Your task to perform on an android device: What's the price of the Samsung TV? Image 0: 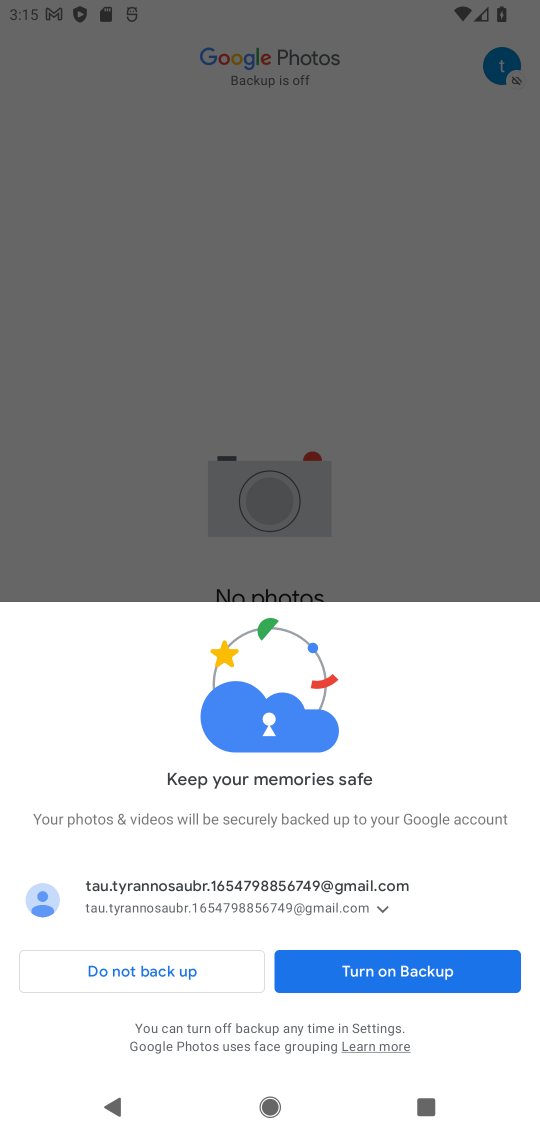
Step 0: press home button
Your task to perform on an android device: What's the price of the Samsung TV? Image 1: 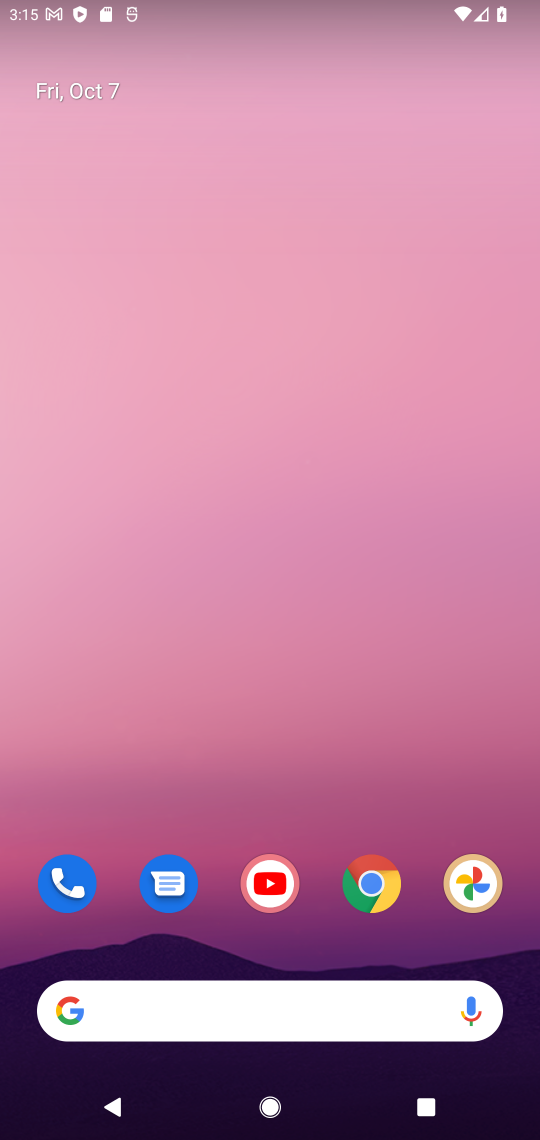
Step 1: click (363, 875)
Your task to perform on an android device: What's the price of the Samsung TV? Image 2: 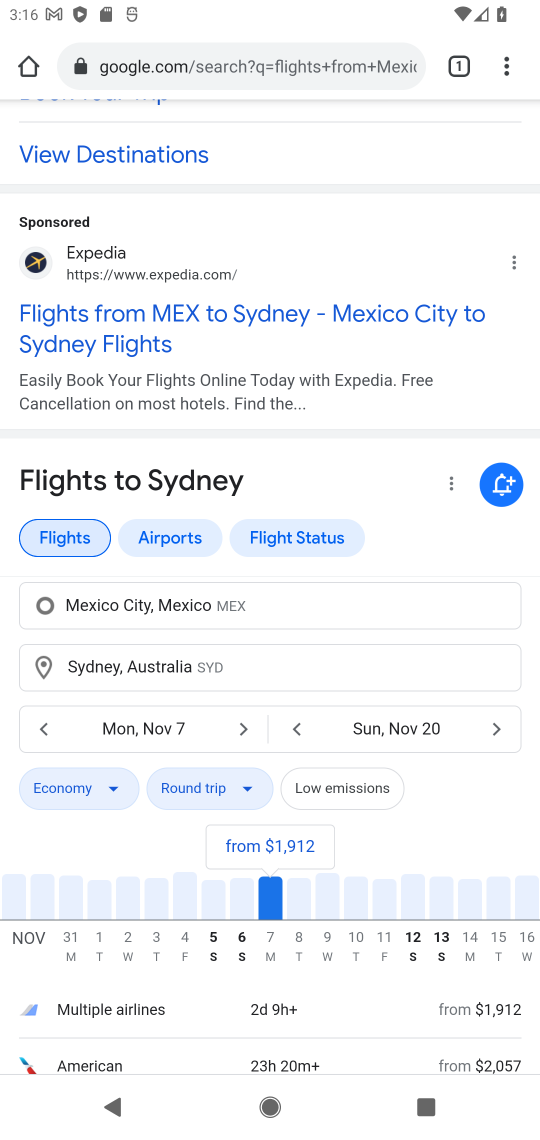
Step 2: click (201, 70)
Your task to perform on an android device: What's the price of the Samsung TV? Image 3: 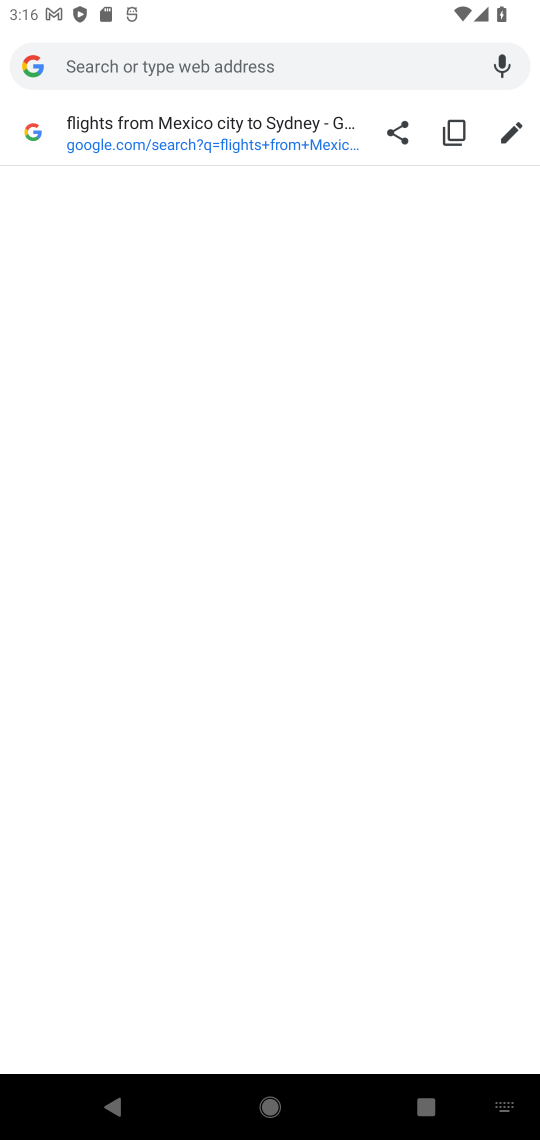
Step 3: type "price of the Samsung TV?"
Your task to perform on an android device: What's the price of the Samsung TV? Image 4: 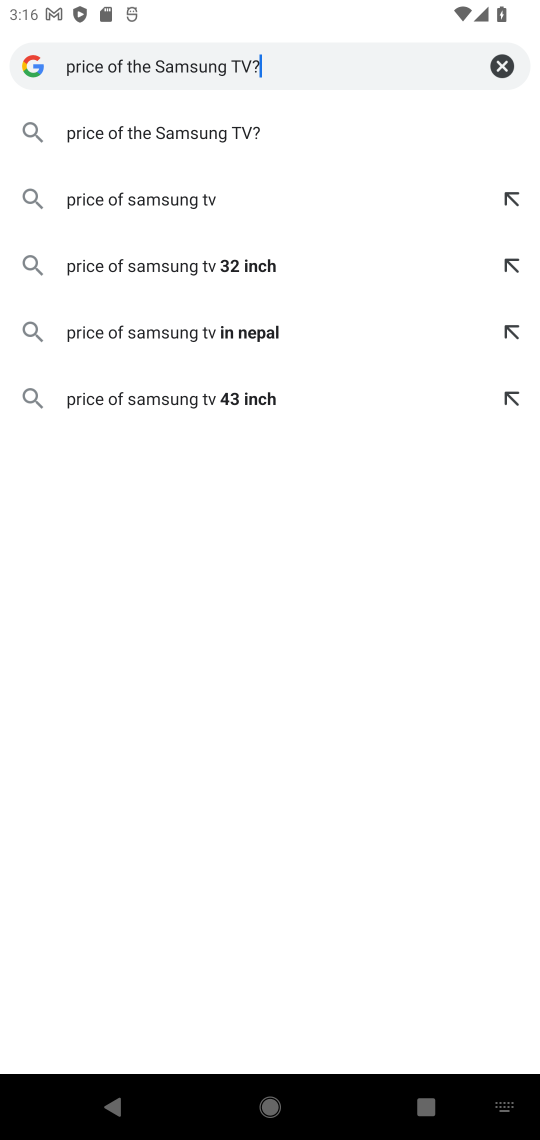
Step 4: click (201, 138)
Your task to perform on an android device: What's the price of the Samsung TV? Image 5: 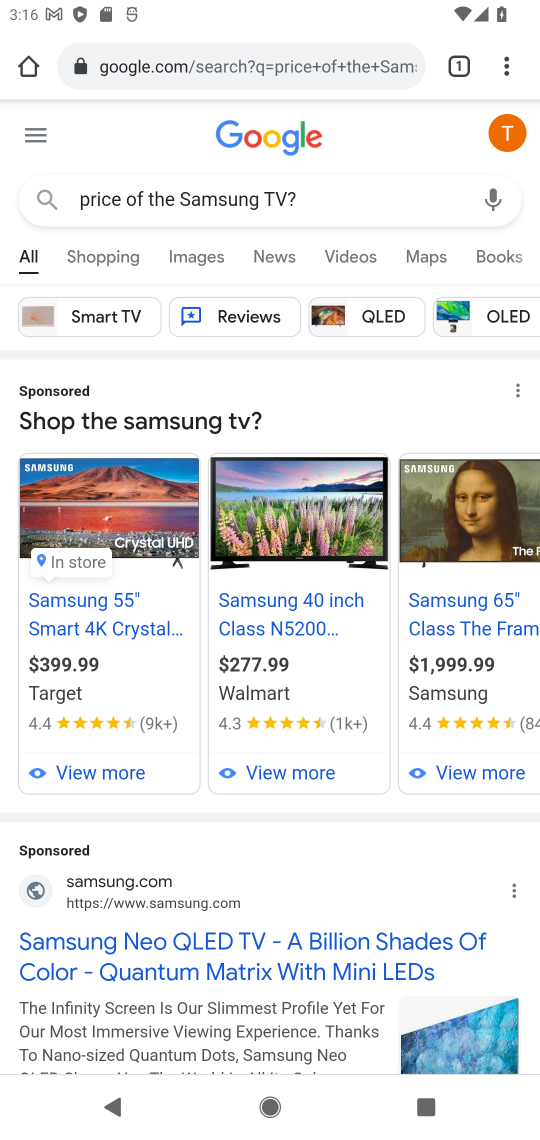
Step 5: task complete